Your task to perform on an android device: Open notification settings Image 0: 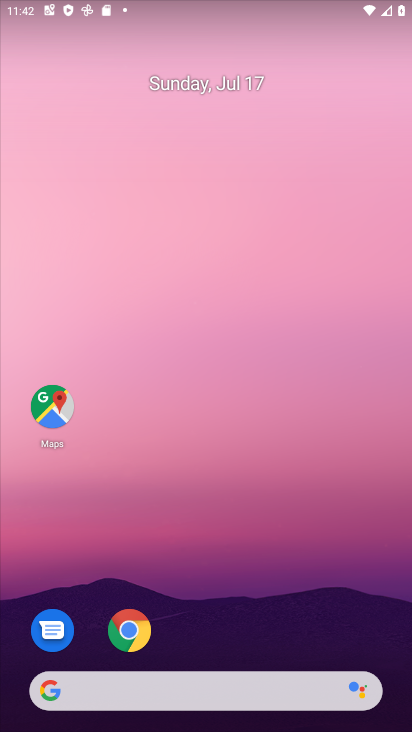
Step 0: drag from (234, 657) to (233, 15)
Your task to perform on an android device: Open notification settings Image 1: 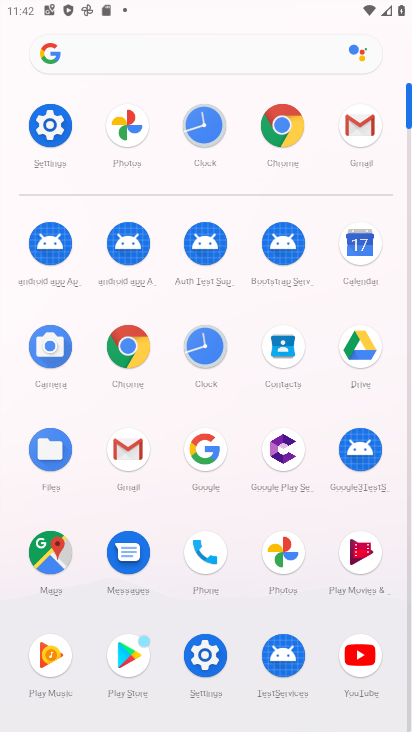
Step 1: click (26, 135)
Your task to perform on an android device: Open notification settings Image 2: 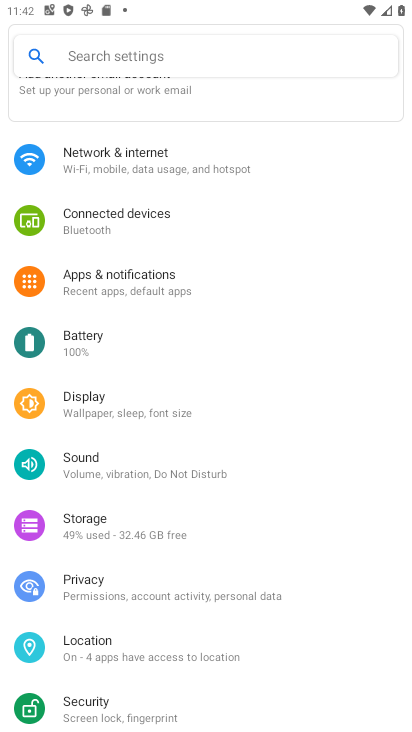
Step 2: click (175, 266)
Your task to perform on an android device: Open notification settings Image 3: 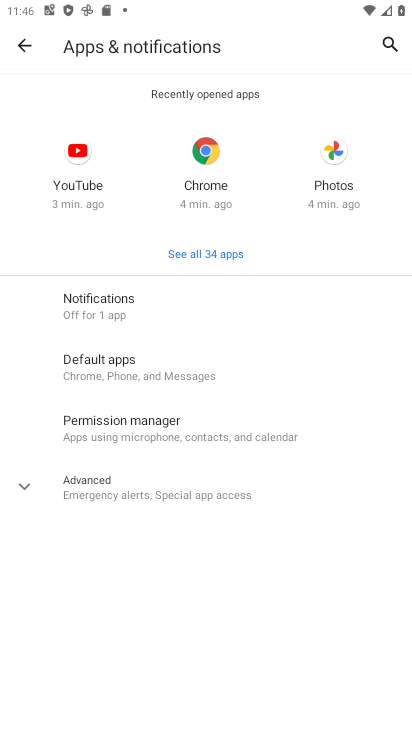
Step 3: task complete